Your task to perform on an android device: turn on notifications settings in the gmail app Image 0: 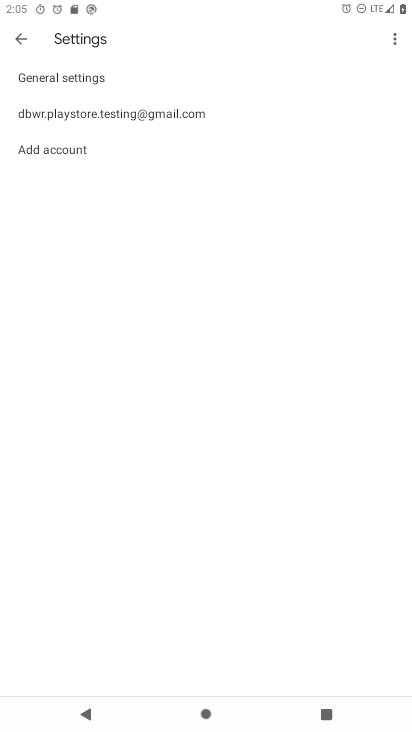
Step 0: press home button
Your task to perform on an android device: turn on notifications settings in the gmail app Image 1: 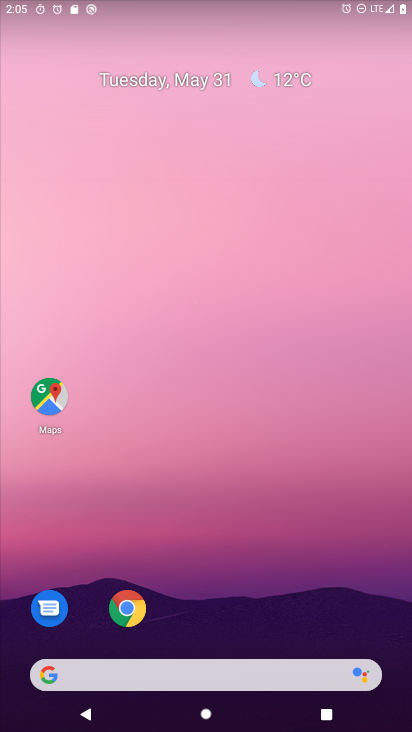
Step 1: drag from (272, 630) to (292, 5)
Your task to perform on an android device: turn on notifications settings in the gmail app Image 2: 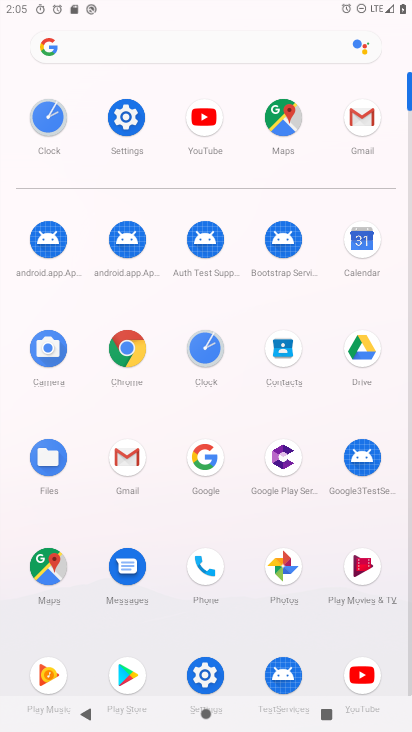
Step 2: click (362, 128)
Your task to perform on an android device: turn on notifications settings in the gmail app Image 3: 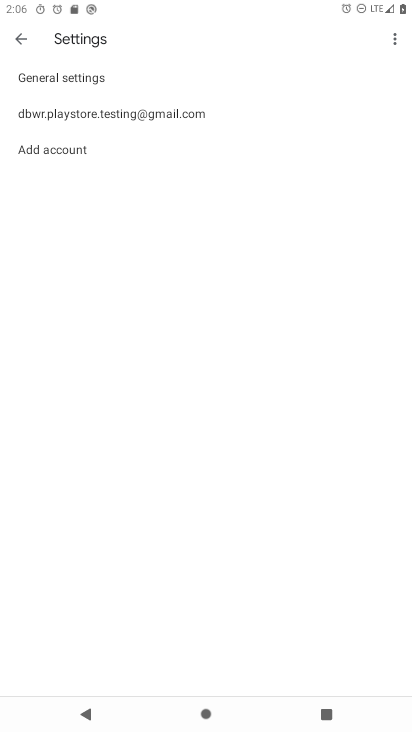
Step 3: click (46, 80)
Your task to perform on an android device: turn on notifications settings in the gmail app Image 4: 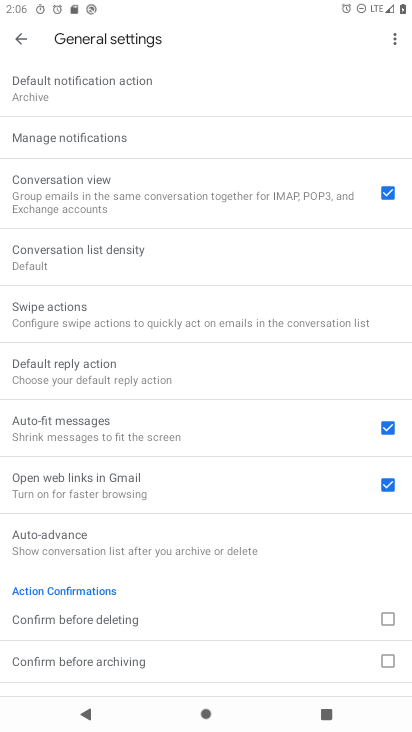
Step 4: click (70, 149)
Your task to perform on an android device: turn on notifications settings in the gmail app Image 5: 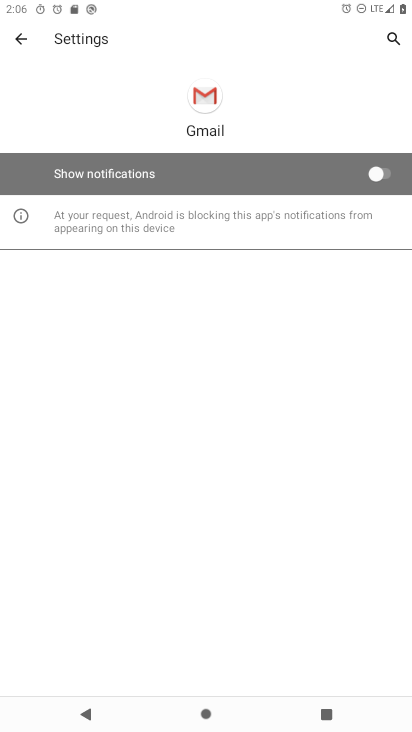
Step 5: click (383, 179)
Your task to perform on an android device: turn on notifications settings in the gmail app Image 6: 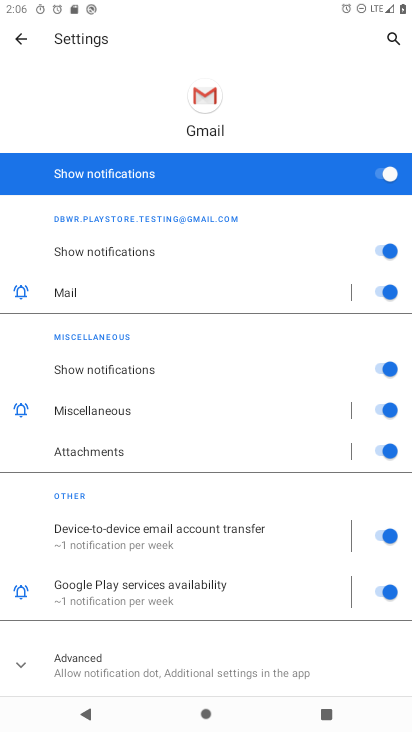
Step 6: task complete